Your task to perform on an android device: turn off translation in the chrome app Image 0: 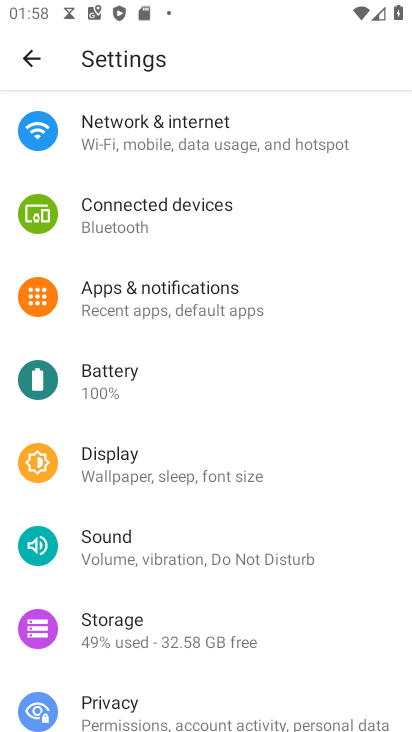
Step 0: press home button
Your task to perform on an android device: turn off translation in the chrome app Image 1: 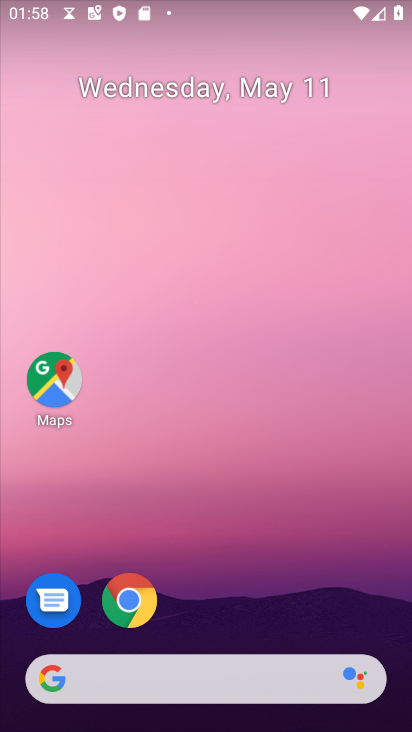
Step 1: drag from (290, 622) to (283, 303)
Your task to perform on an android device: turn off translation in the chrome app Image 2: 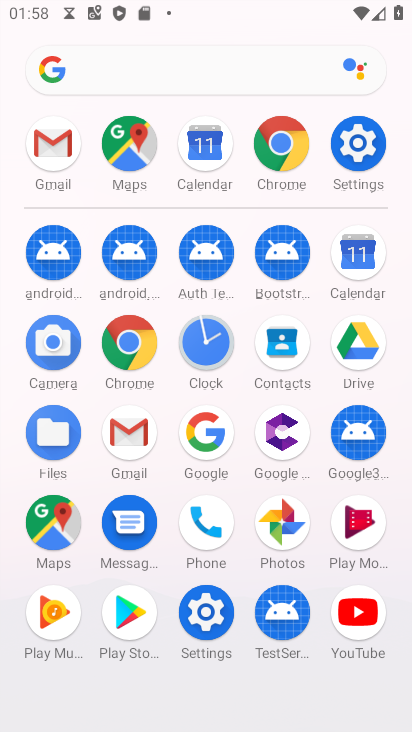
Step 2: click (287, 135)
Your task to perform on an android device: turn off translation in the chrome app Image 3: 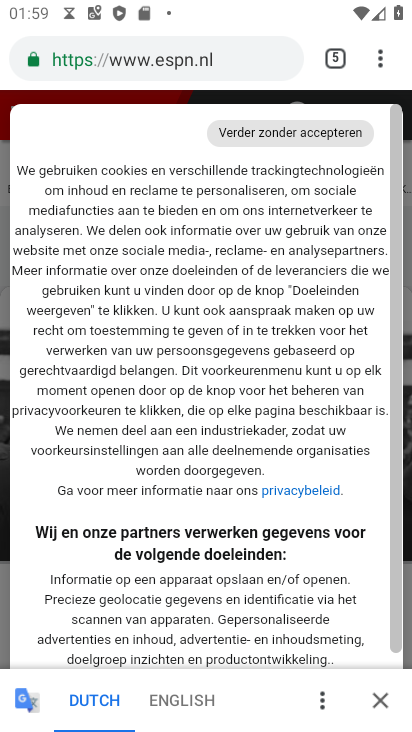
Step 3: click (369, 58)
Your task to perform on an android device: turn off translation in the chrome app Image 4: 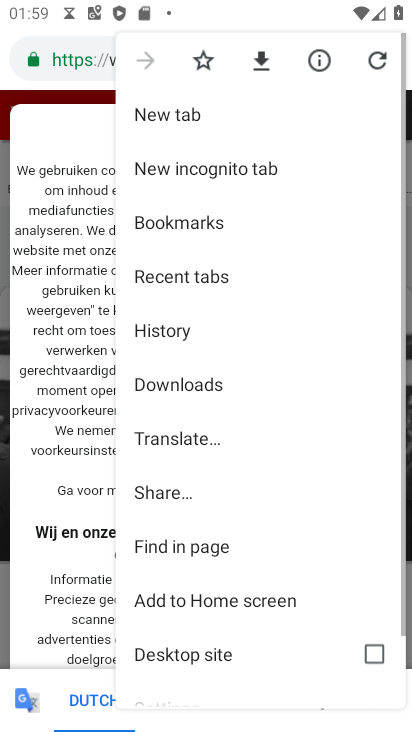
Step 4: drag from (212, 641) to (304, 248)
Your task to perform on an android device: turn off translation in the chrome app Image 5: 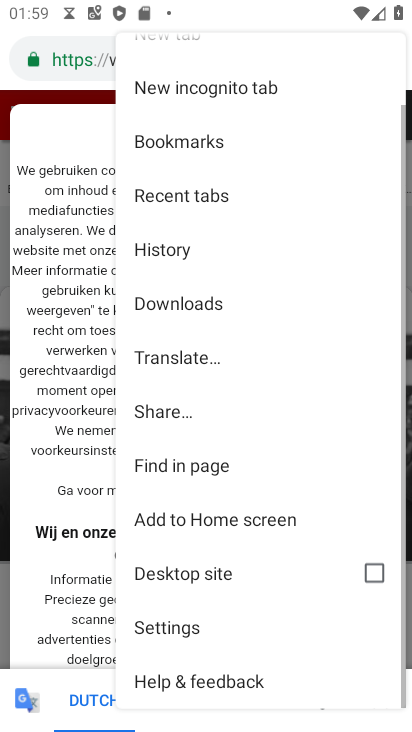
Step 5: click (205, 629)
Your task to perform on an android device: turn off translation in the chrome app Image 6: 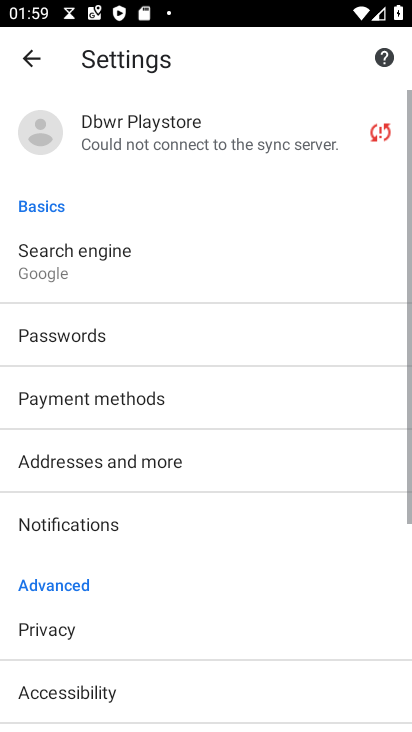
Step 6: drag from (120, 632) to (236, 195)
Your task to perform on an android device: turn off translation in the chrome app Image 7: 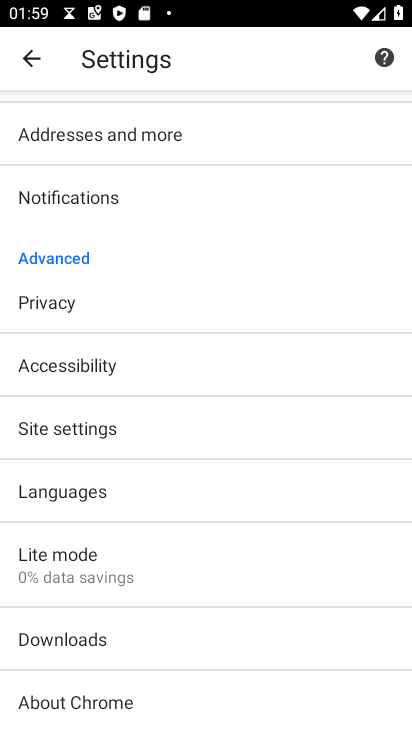
Step 7: click (106, 489)
Your task to perform on an android device: turn off translation in the chrome app Image 8: 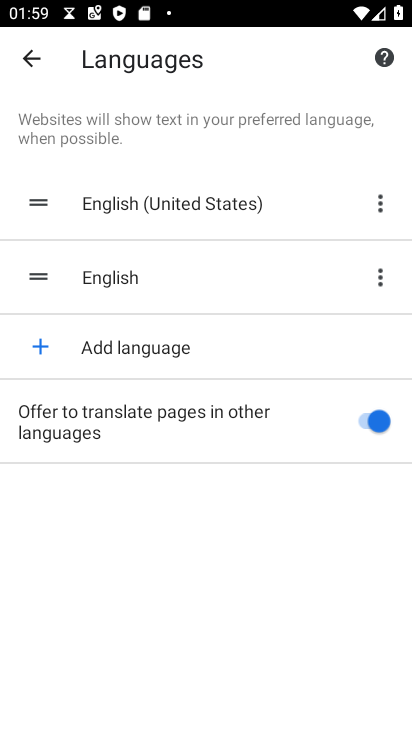
Step 8: click (364, 408)
Your task to perform on an android device: turn off translation in the chrome app Image 9: 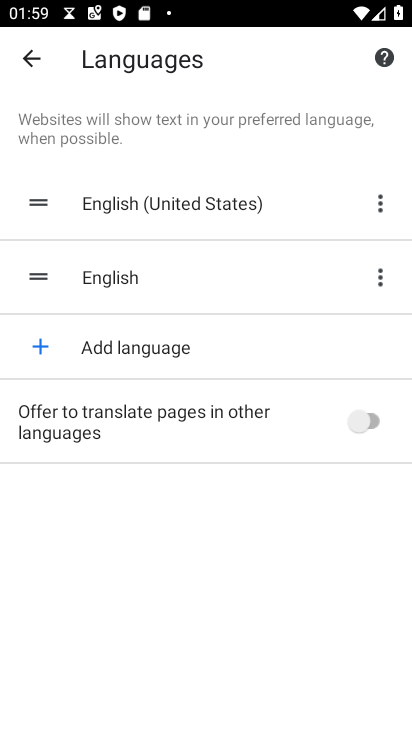
Step 9: task complete